Your task to perform on an android device: Show me the alarms in the clock app Image 0: 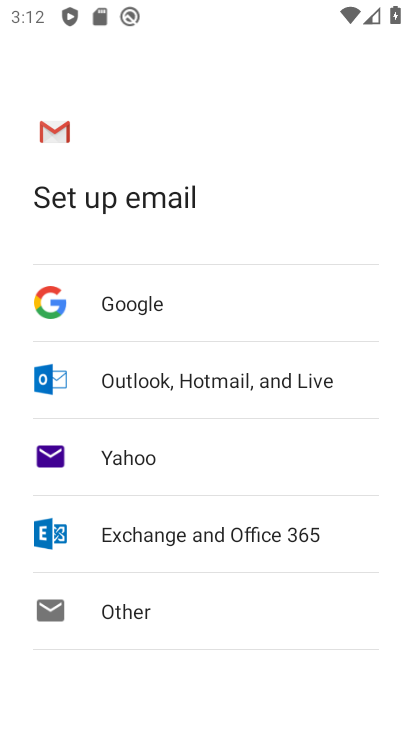
Step 0: press home button
Your task to perform on an android device: Show me the alarms in the clock app Image 1: 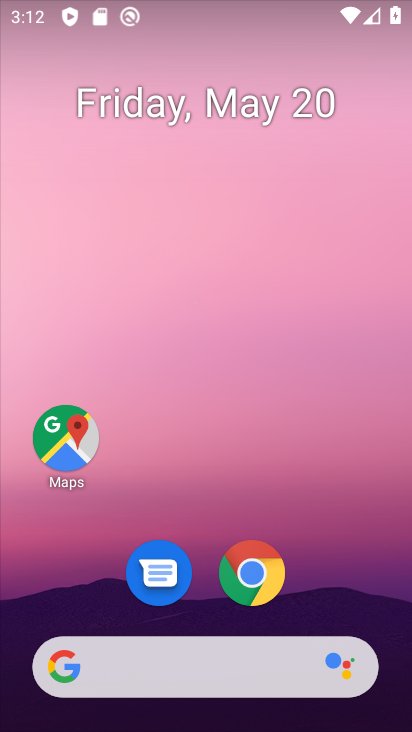
Step 1: drag from (200, 613) to (168, 40)
Your task to perform on an android device: Show me the alarms in the clock app Image 2: 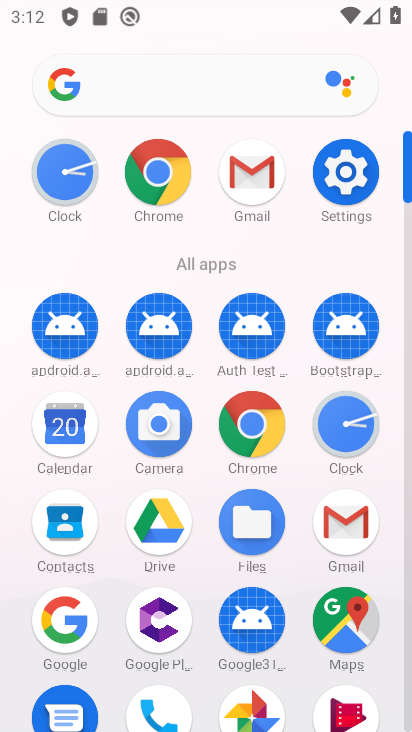
Step 2: click (347, 432)
Your task to perform on an android device: Show me the alarms in the clock app Image 3: 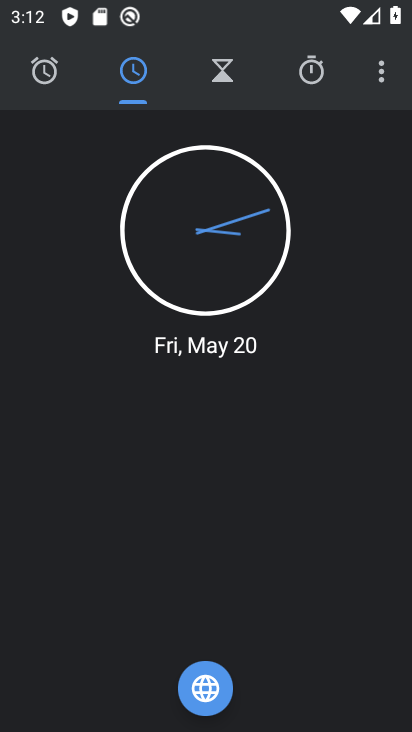
Step 3: click (47, 72)
Your task to perform on an android device: Show me the alarms in the clock app Image 4: 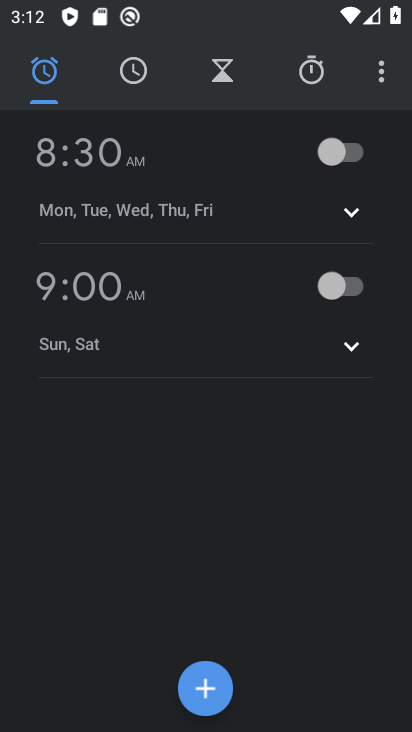
Step 4: task complete